Your task to perform on an android device: Open Google Chrome and open the bookmarks view Image 0: 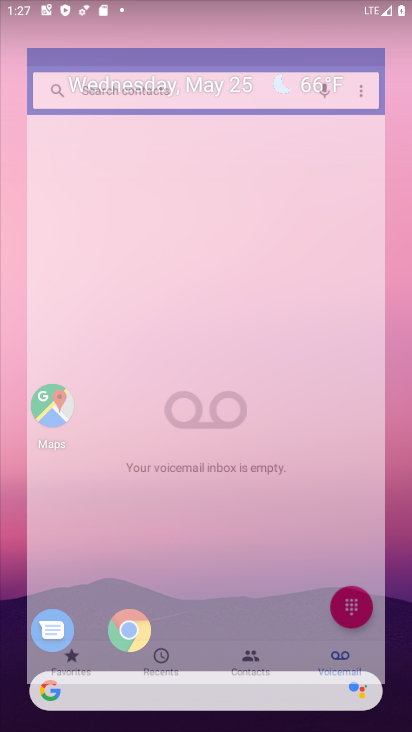
Step 0: press home button
Your task to perform on an android device: Open Google Chrome and open the bookmarks view Image 1: 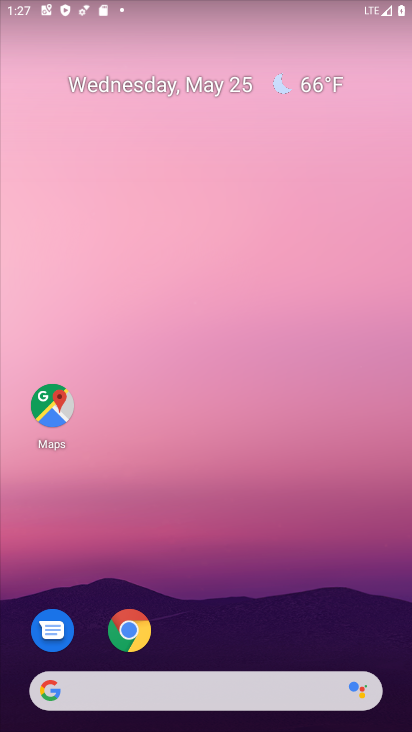
Step 1: click (130, 629)
Your task to perform on an android device: Open Google Chrome and open the bookmarks view Image 2: 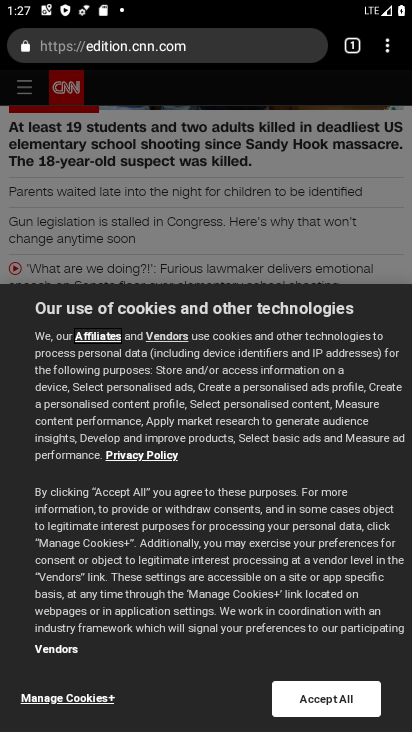
Step 2: click (331, 693)
Your task to perform on an android device: Open Google Chrome and open the bookmarks view Image 3: 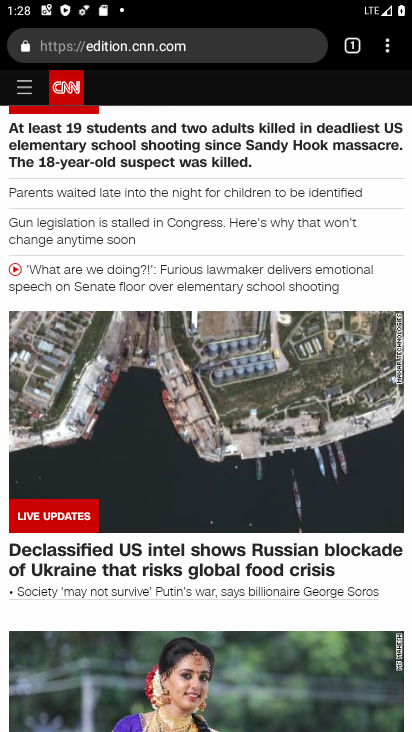
Step 3: click (387, 40)
Your task to perform on an android device: Open Google Chrome and open the bookmarks view Image 4: 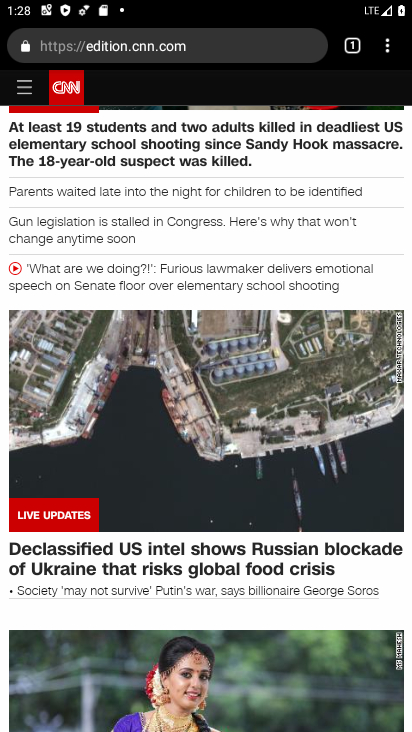
Step 4: click (387, 47)
Your task to perform on an android device: Open Google Chrome and open the bookmarks view Image 5: 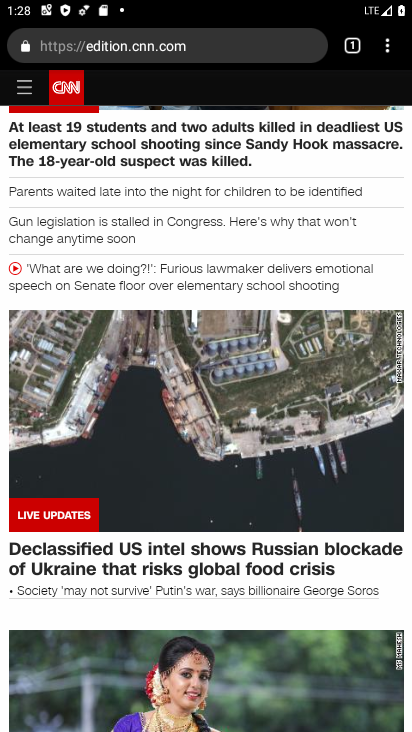
Step 5: click (385, 41)
Your task to perform on an android device: Open Google Chrome and open the bookmarks view Image 6: 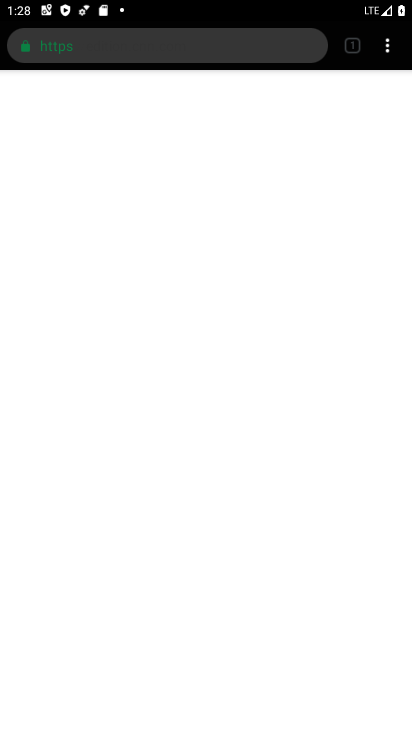
Step 6: click (385, 41)
Your task to perform on an android device: Open Google Chrome and open the bookmarks view Image 7: 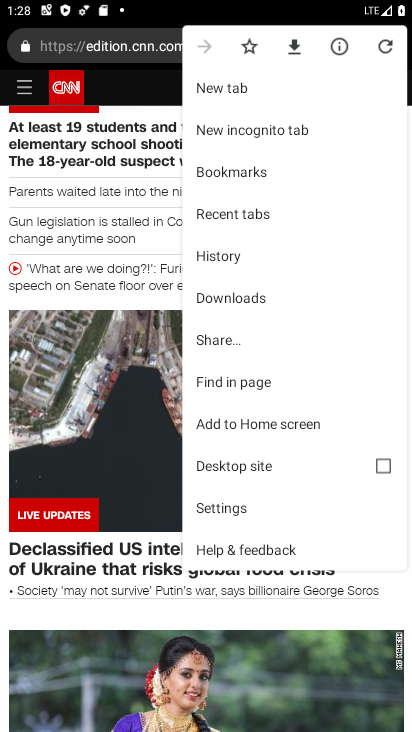
Step 7: click (270, 170)
Your task to perform on an android device: Open Google Chrome and open the bookmarks view Image 8: 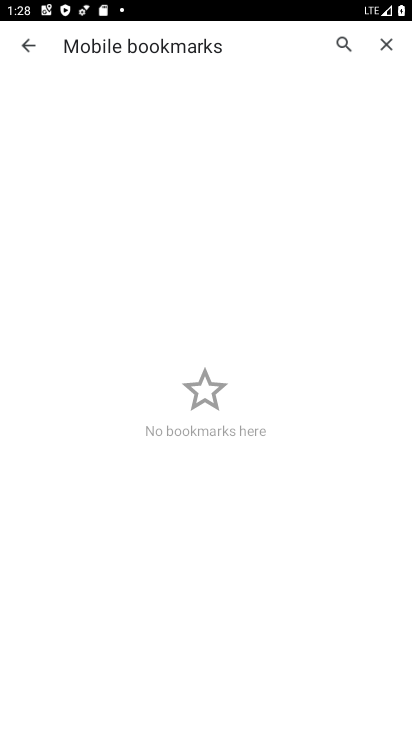
Step 8: task complete